Your task to perform on an android device: star an email in the gmail app Image 0: 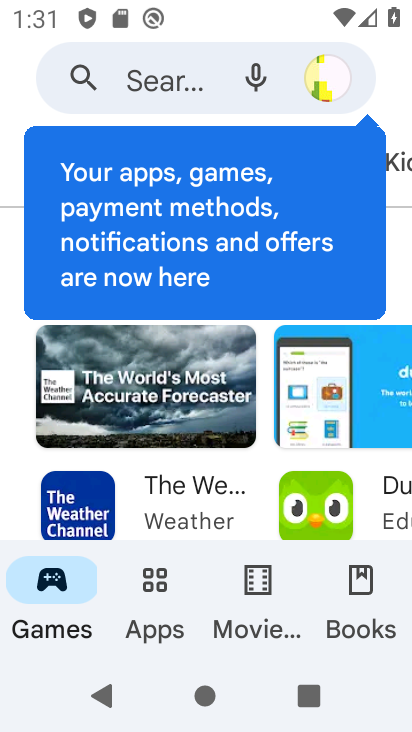
Step 0: press home button
Your task to perform on an android device: star an email in the gmail app Image 1: 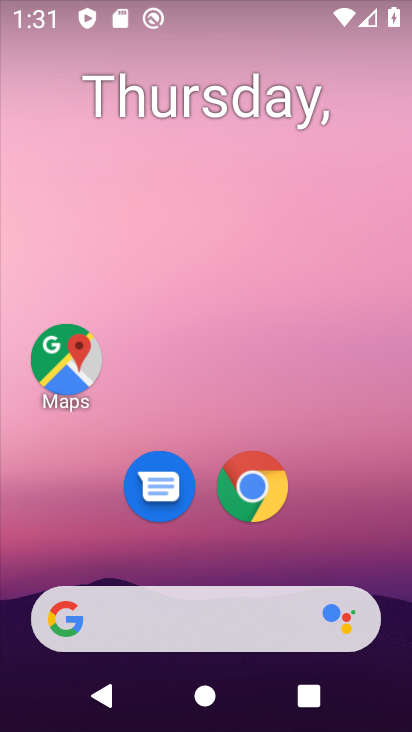
Step 1: drag from (378, 523) to (325, 253)
Your task to perform on an android device: star an email in the gmail app Image 2: 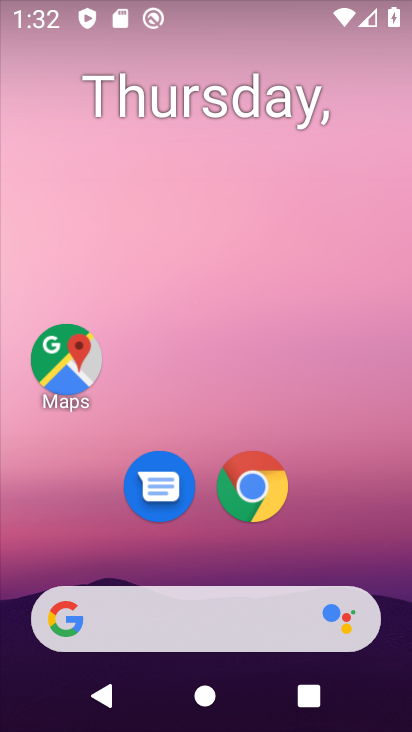
Step 2: drag from (385, 559) to (326, 11)
Your task to perform on an android device: star an email in the gmail app Image 3: 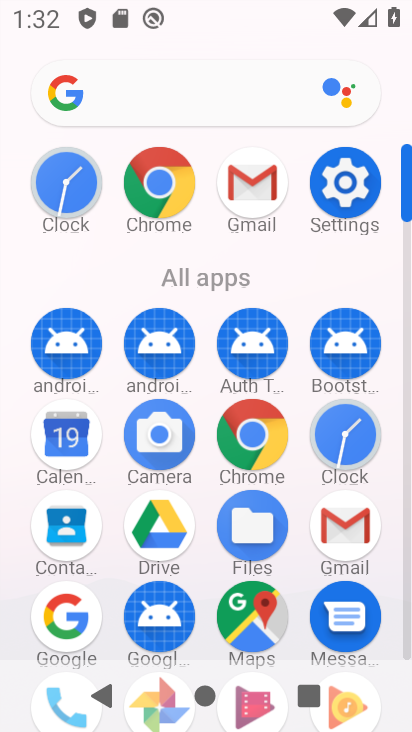
Step 3: click (254, 172)
Your task to perform on an android device: star an email in the gmail app Image 4: 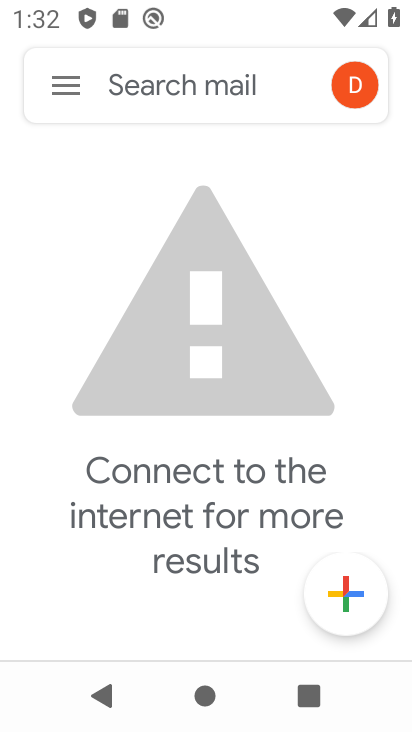
Step 4: click (54, 97)
Your task to perform on an android device: star an email in the gmail app Image 5: 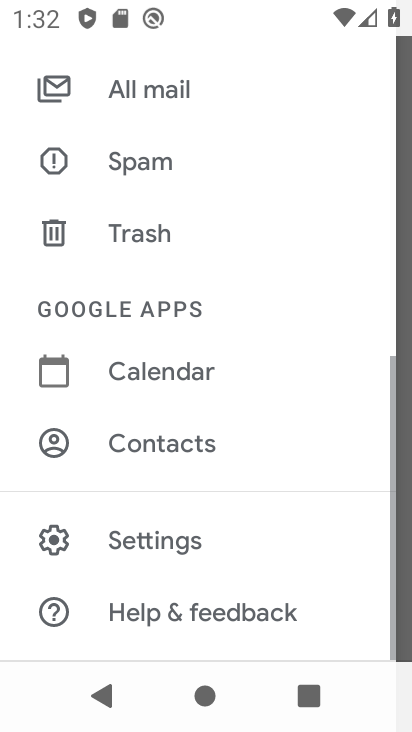
Step 5: click (148, 101)
Your task to perform on an android device: star an email in the gmail app Image 6: 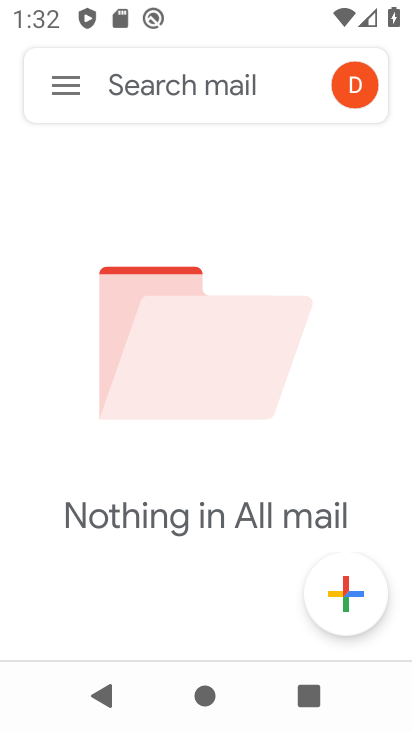
Step 6: task complete